Your task to perform on an android device: turn pop-ups off in chrome Image 0: 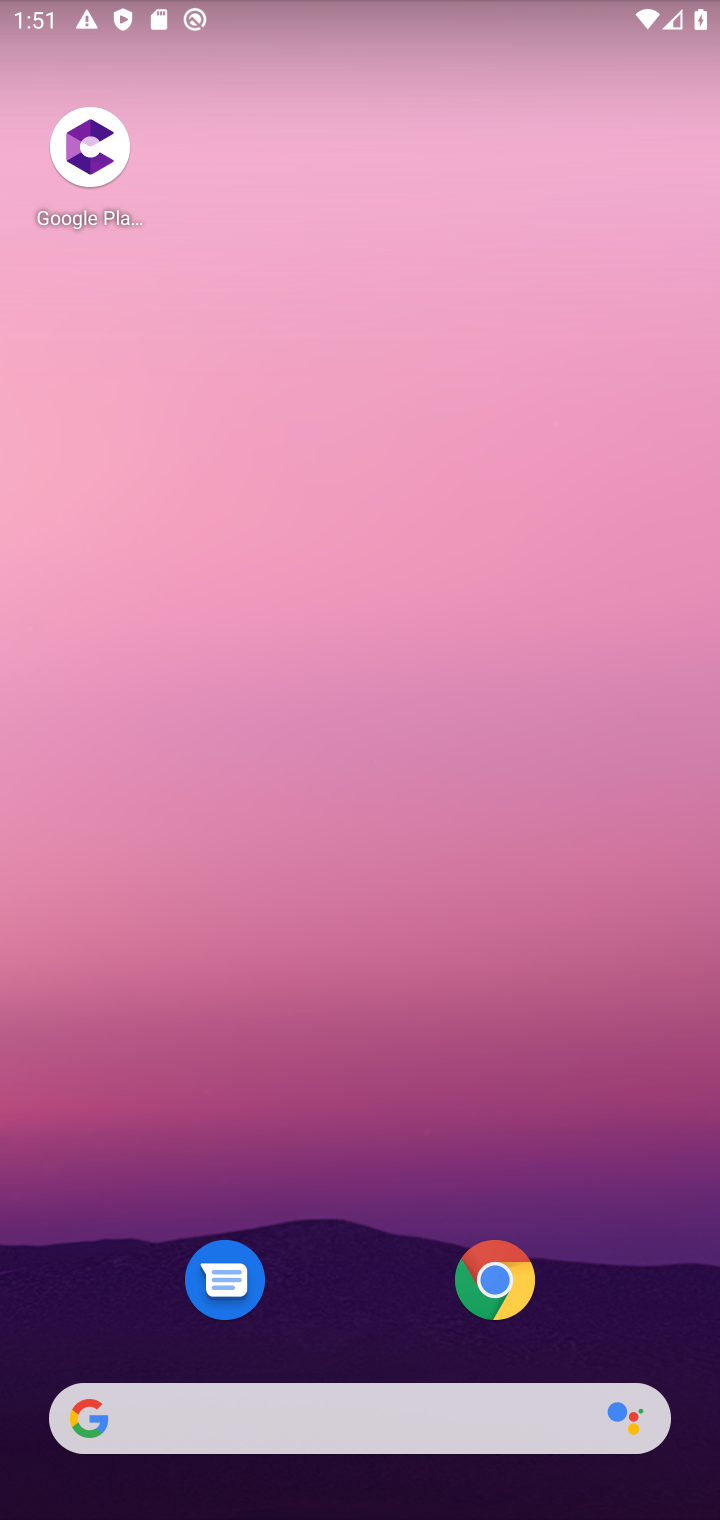
Step 0: click (497, 1267)
Your task to perform on an android device: turn pop-ups off in chrome Image 1: 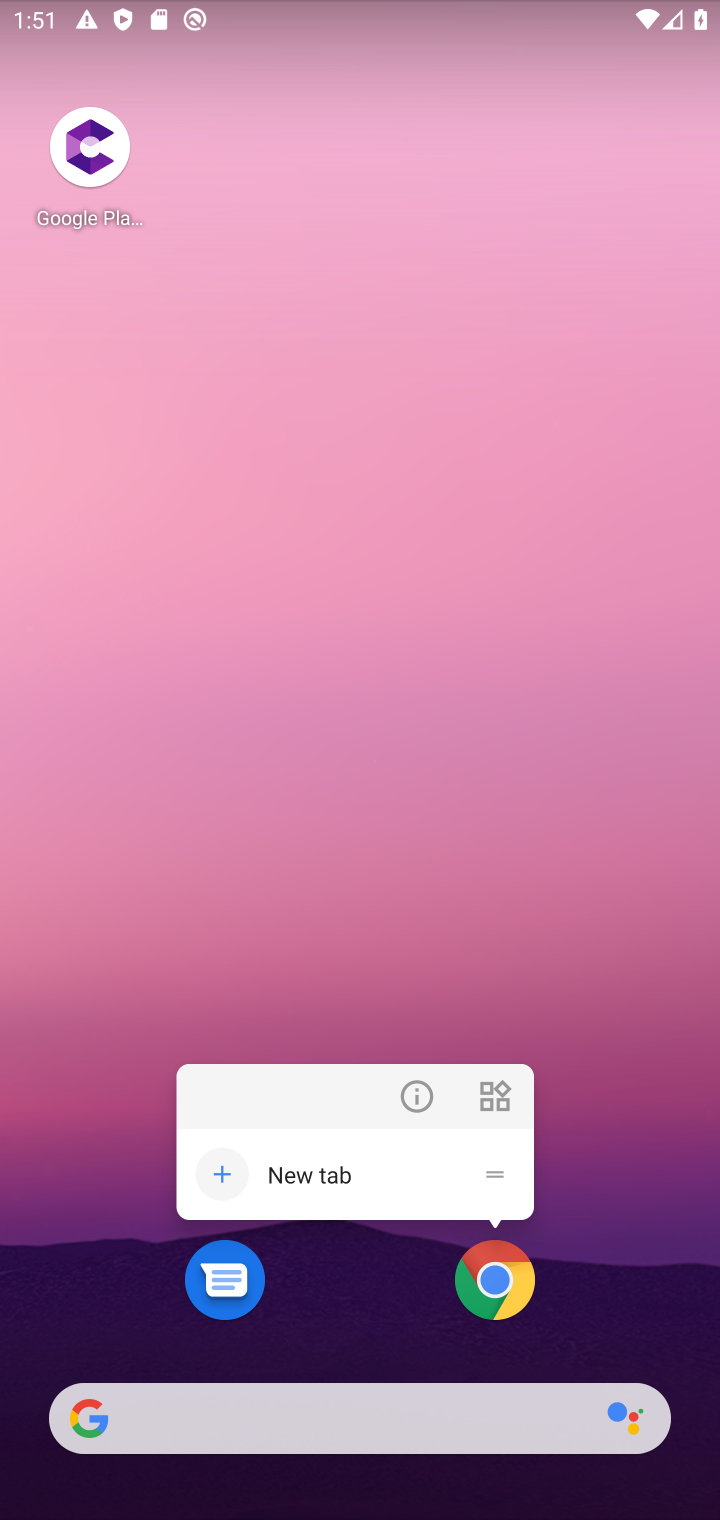
Step 1: click (506, 1268)
Your task to perform on an android device: turn pop-ups off in chrome Image 2: 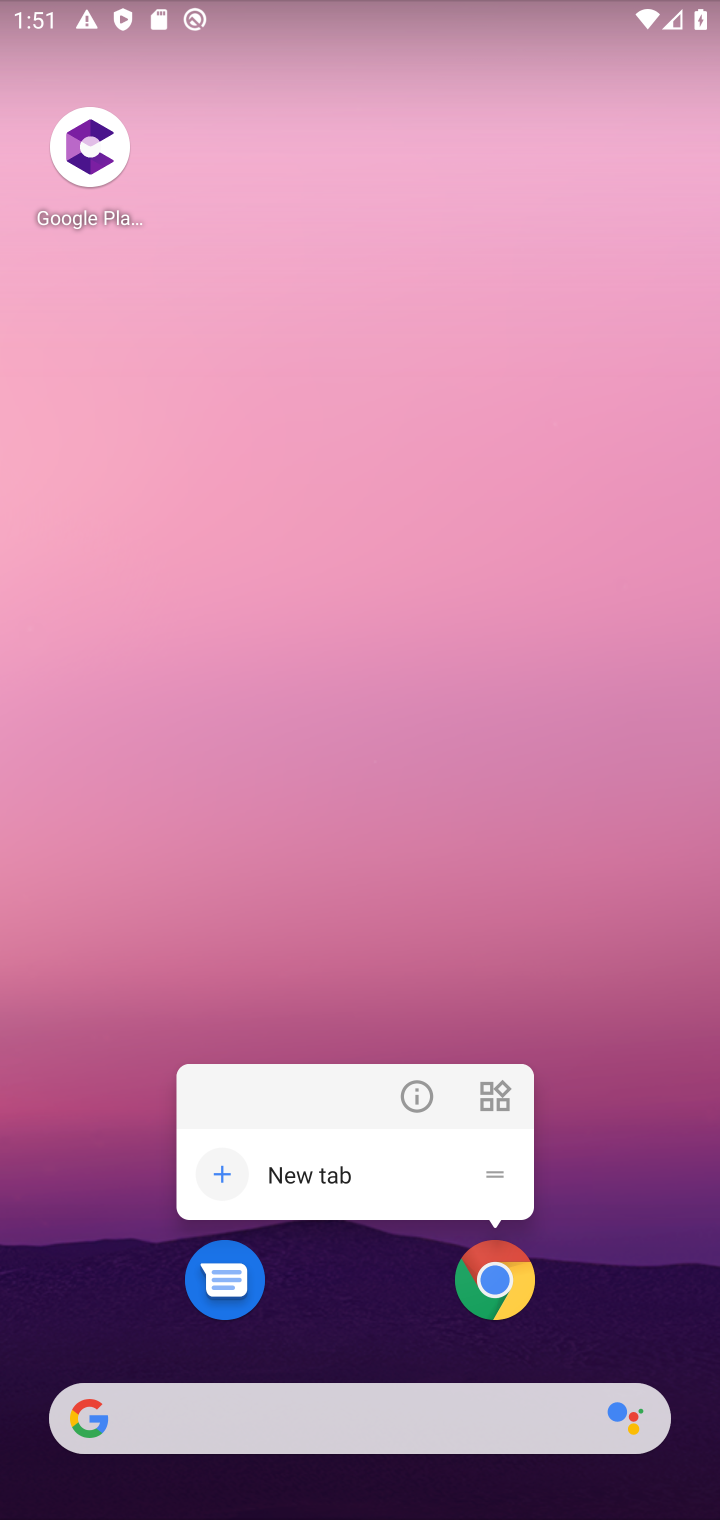
Step 2: click (506, 1274)
Your task to perform on an android device: turn pop-ups off in chrome Image 3: 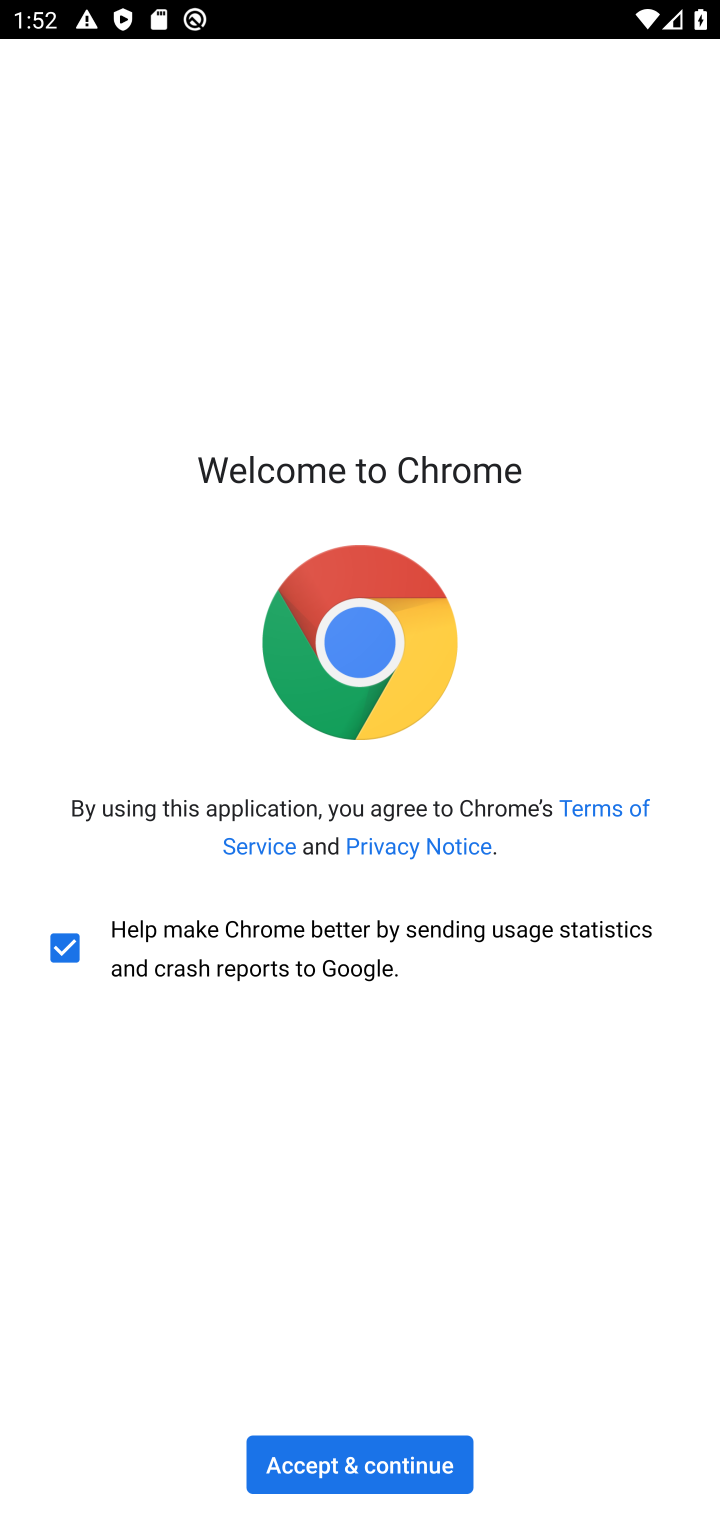
Step 3: click (359, 1464)
Your task to perform on an android device: turn pop-ups off in chrome Image 4: 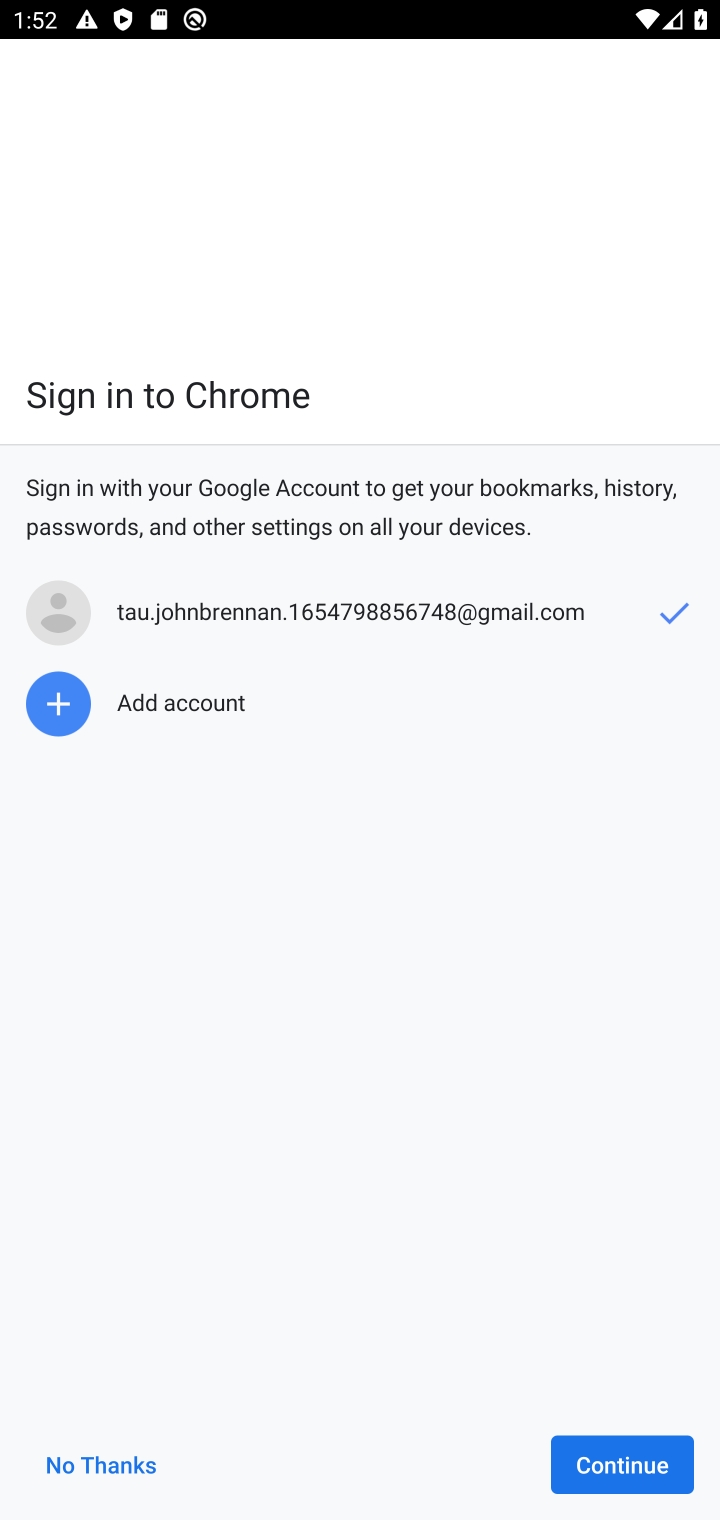
Step 4: click (607, 1468)
Your task to perform on an android device: turn pop-ups off in chrome Image 5: 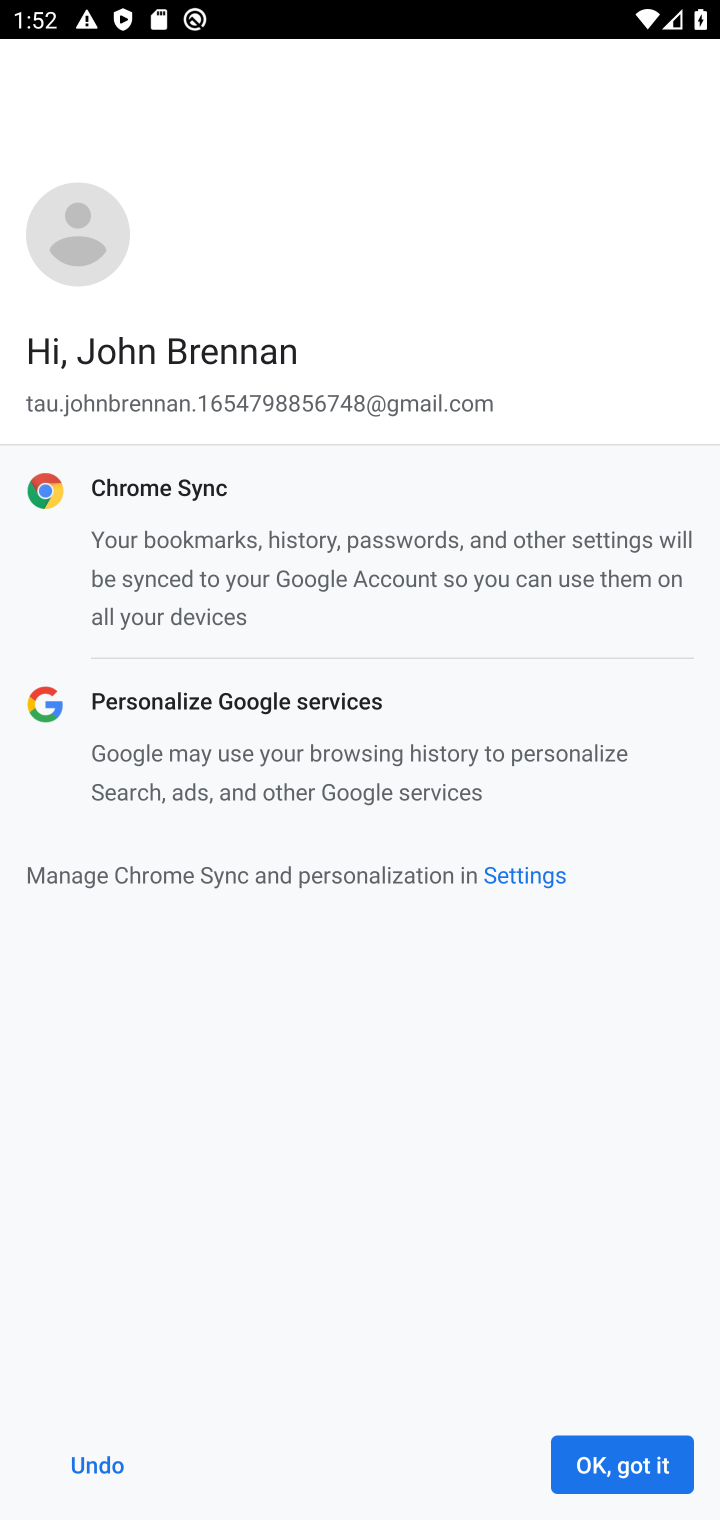
Step 5: click (618, 1456)
Your task to perform on an android device: turn pop-ups off in chrome Image 6: 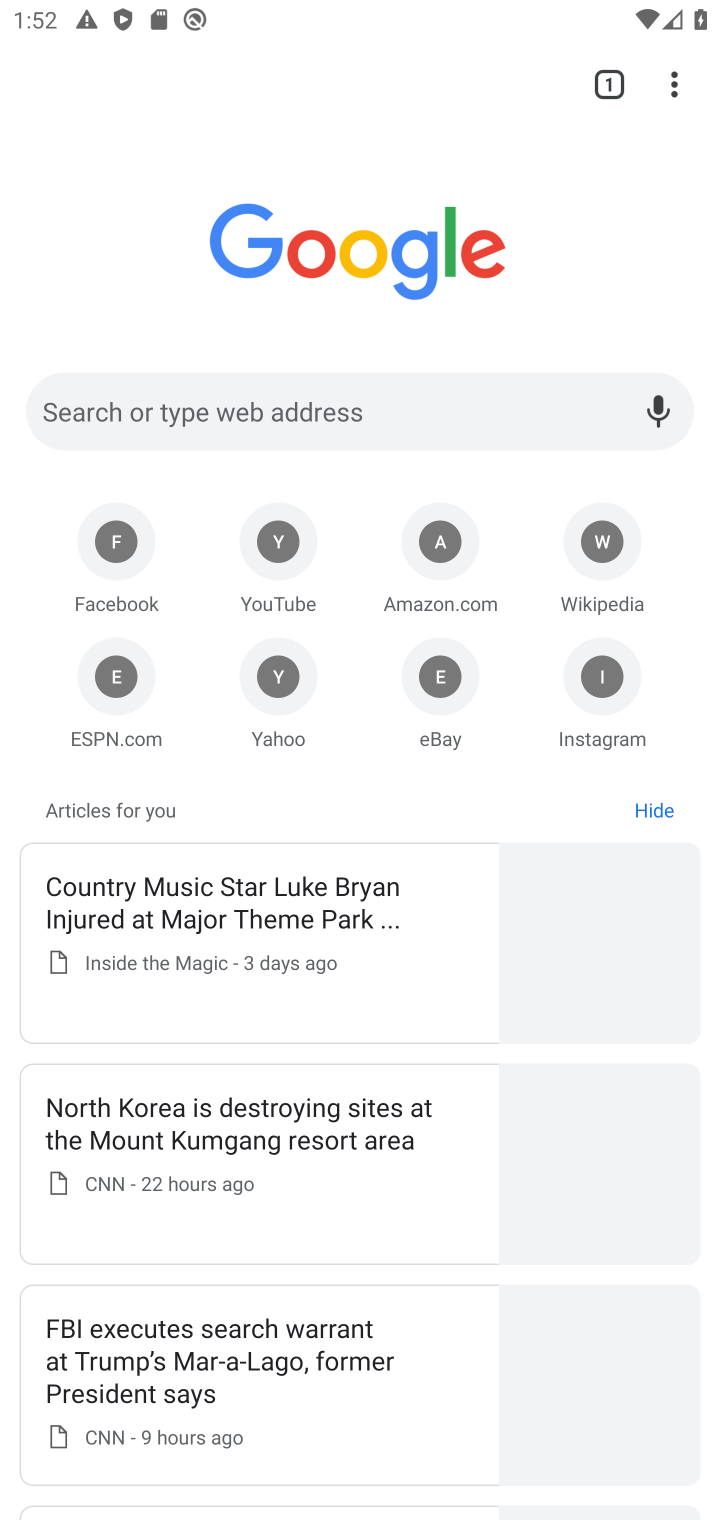
Step 6: drag from (669, 80) to (461, 707)
Your task to perform on an android device: turn pop-ups off in chrome Image 7: 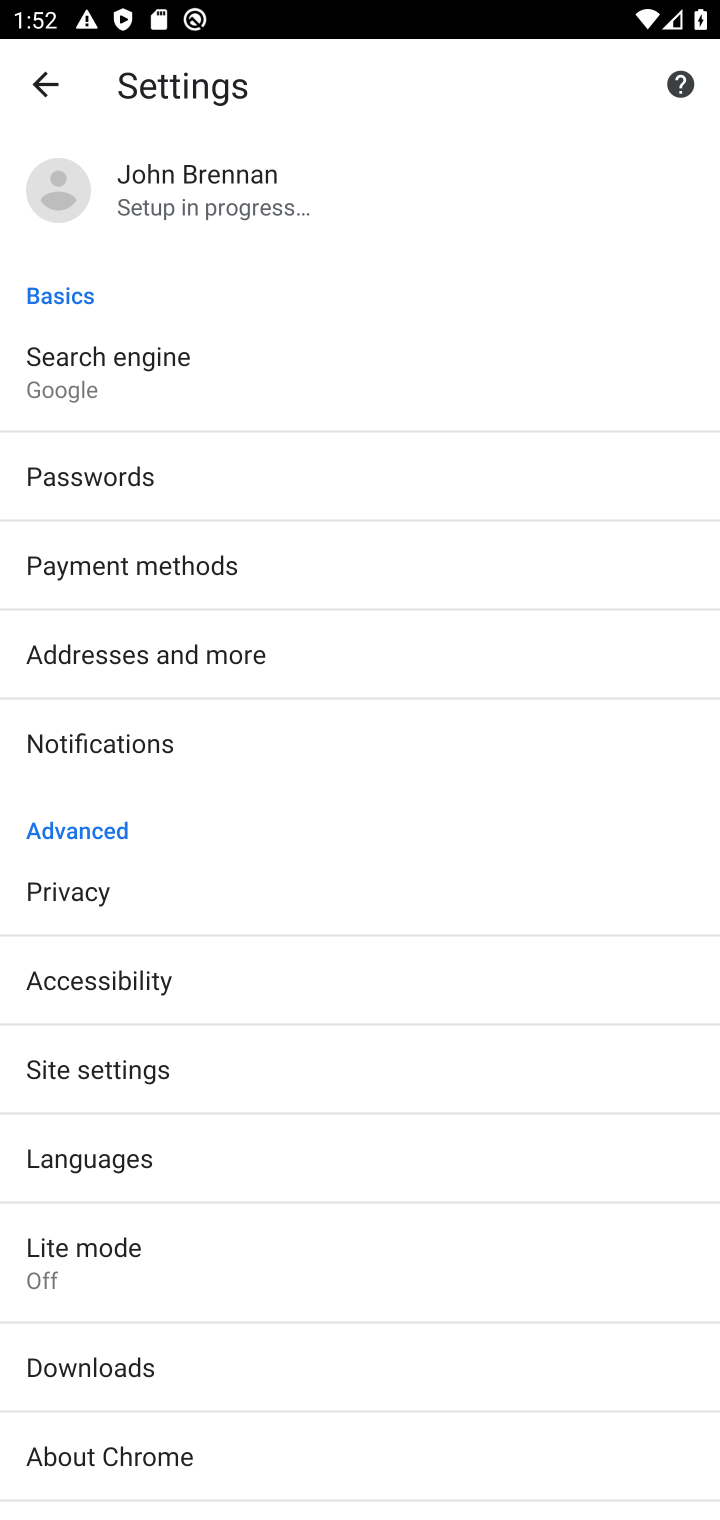
Step 7: click (135, 1050)
Your task to perform on an android device: turn pop-ups off in chrome Image 8: 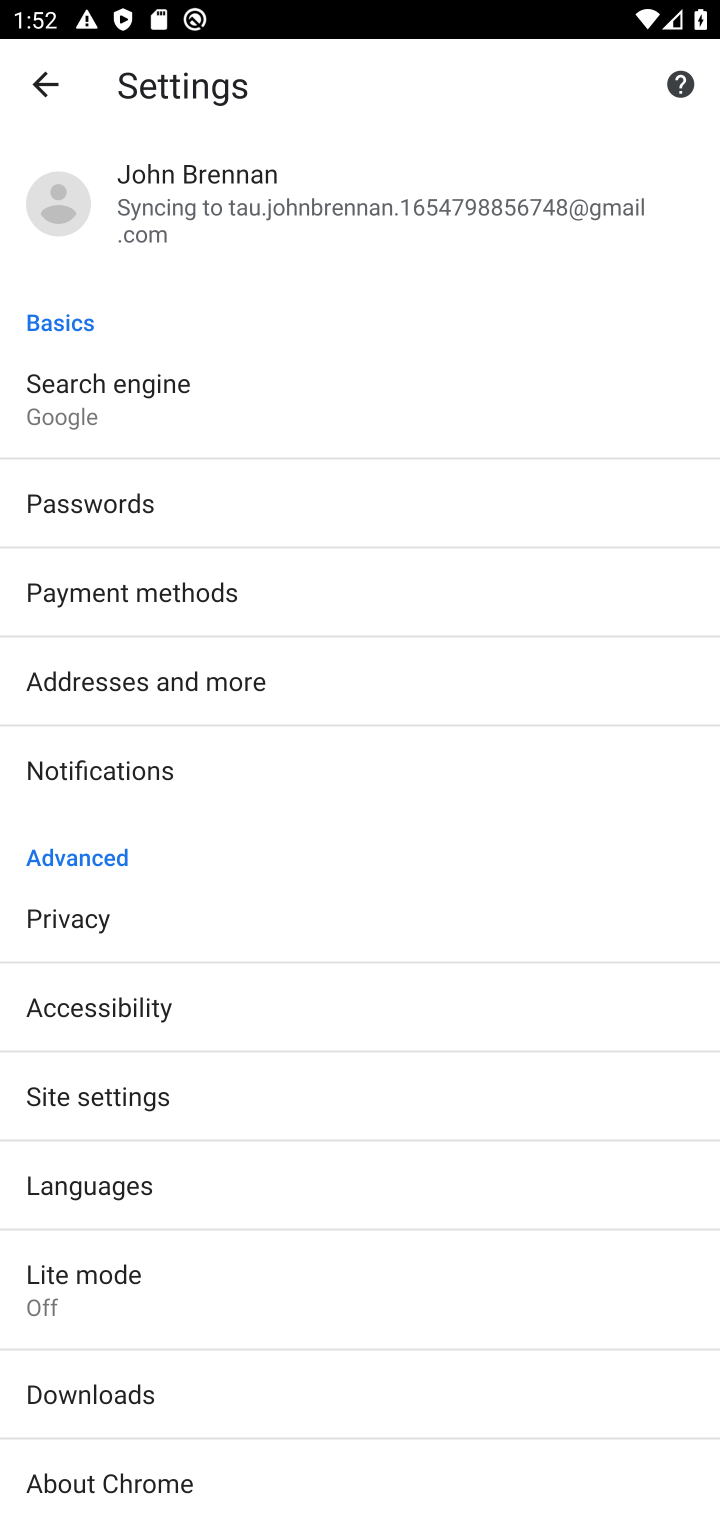
Step 8: click (136, 1099)
Your task to perform on an android device: turn pop-ups off in chrome Image 9: 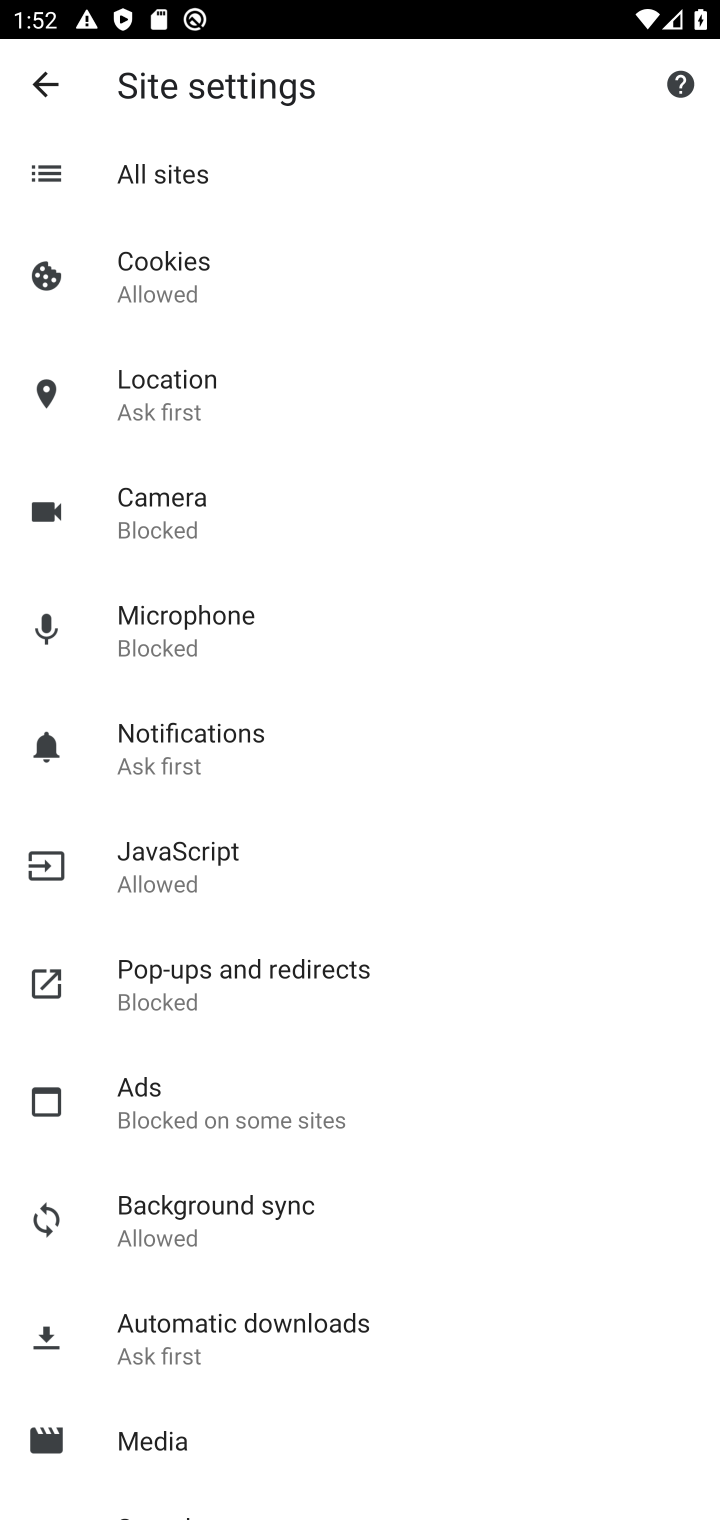
Step 9: click (201, 987)
Your task to perform on an android device: turn pop-ups off in chrome Image 10: 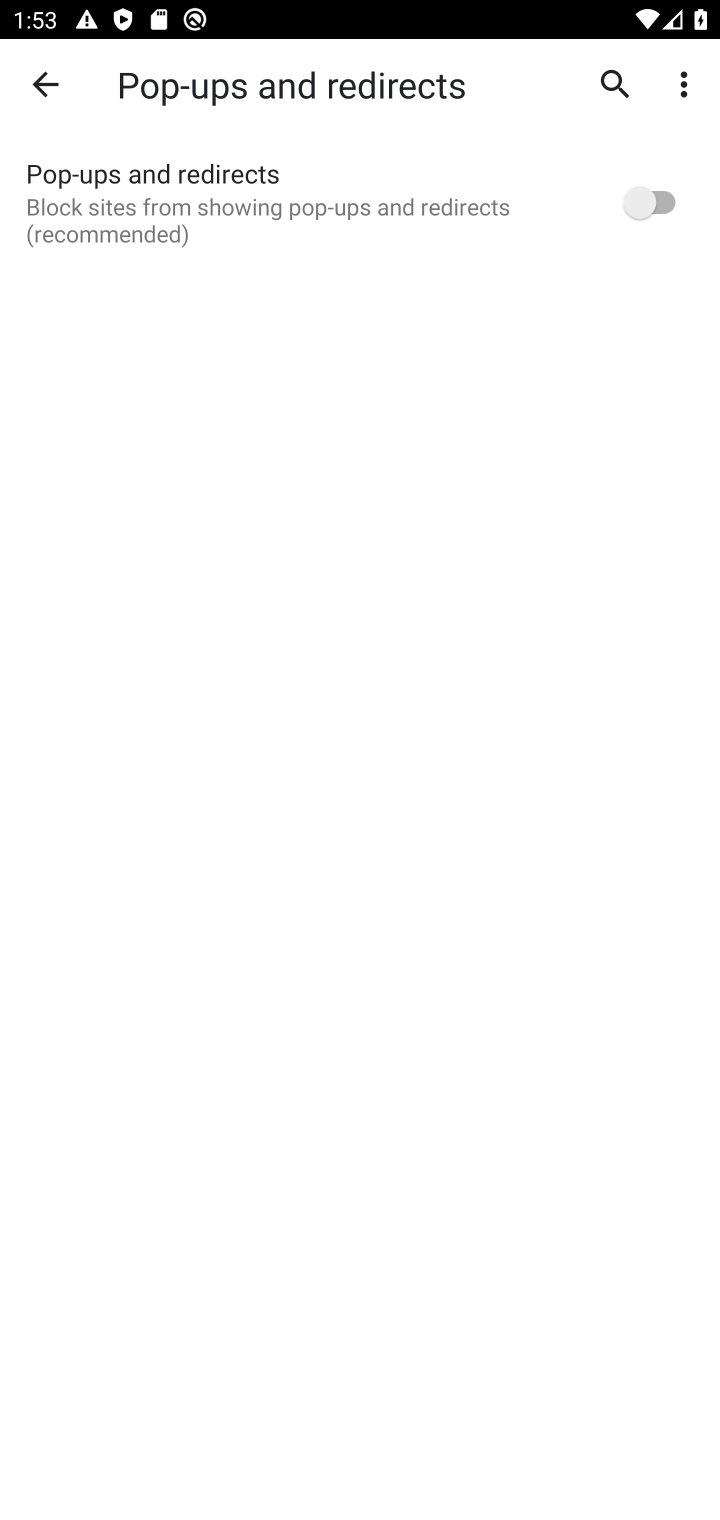
Step 10: task complete